Your task to perform on an android device: change alarm snooze length Image 0: 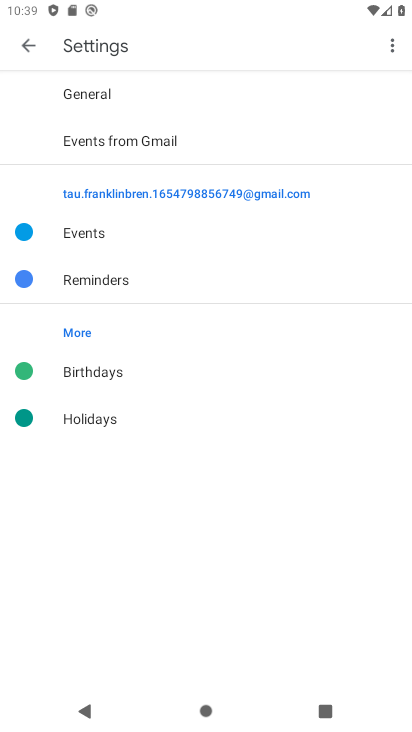
Step 0: press home button
Your task to perform on an android device: change alarm snooze length Image 1: 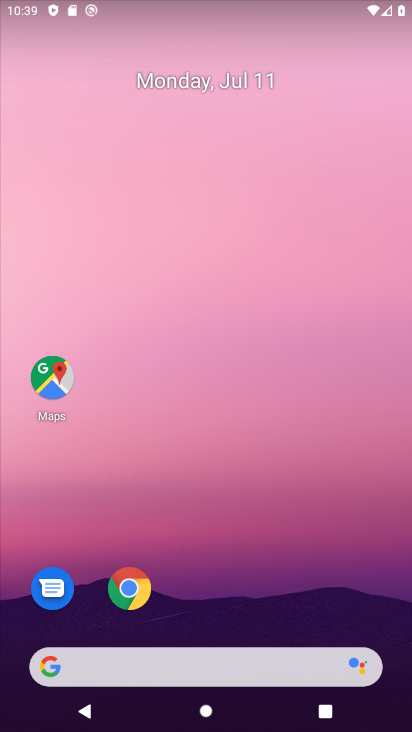
Step 1: drag from (200, 514) to (201, 184)
Your task to perform on an android device: change alarm snooze length Image 2: 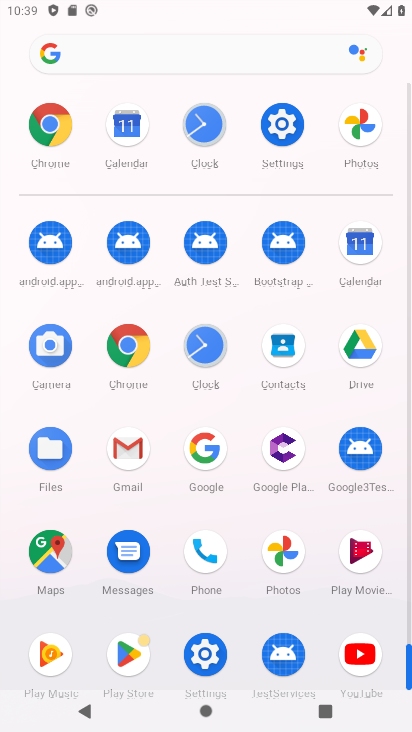
Step 2: click (205, 127)
Your task to perform on an android device: change alarm snooze length Image 3: 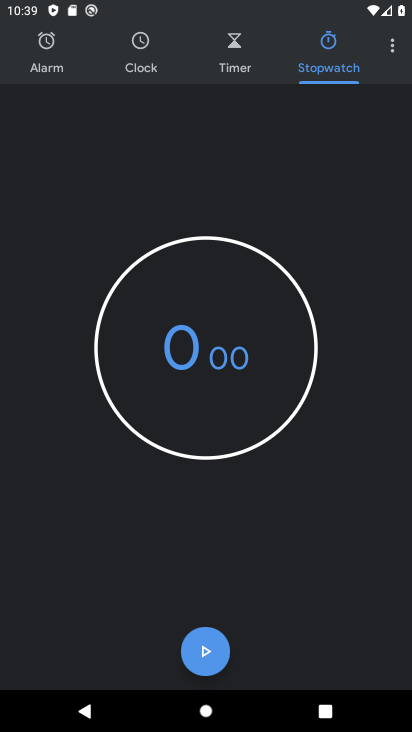
Step 3: click (393, 47)
Your task to perform on an android device: change alarm snooze length Image 4: 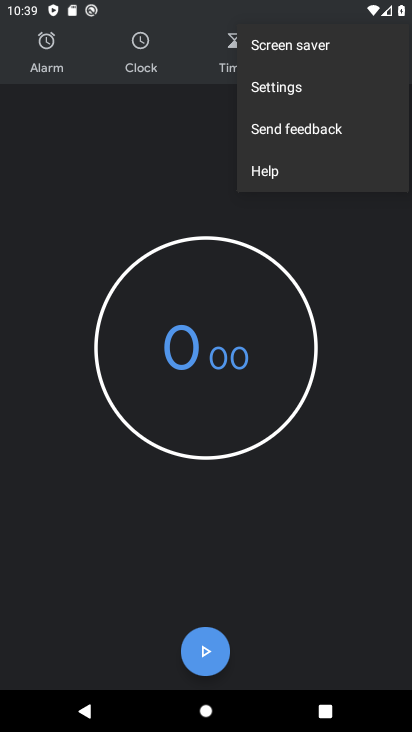
Step 4: click (278, 85)
Your task to perform on an android device: change alarm snooze length Image 5: 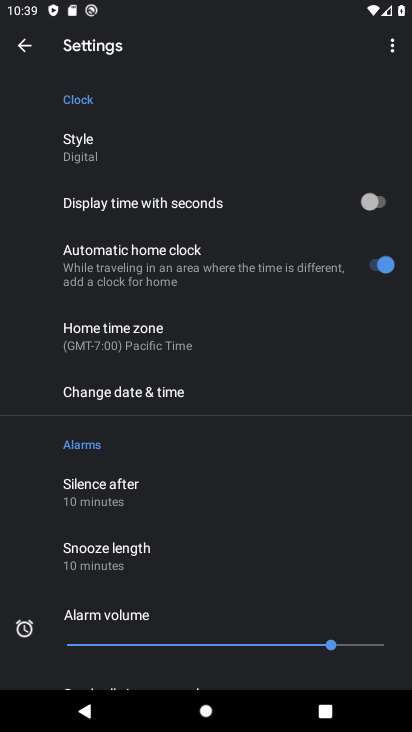
Step 5: click (119, 541)
Your task to perform on an android device: change alarm snooze length Image 6: 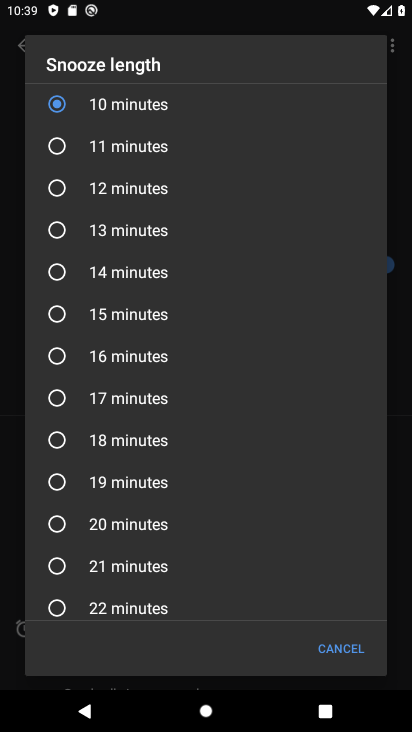
Step 6: click (60, 178)
Your task to perform on an android device: change alarm snooze length Image 7: 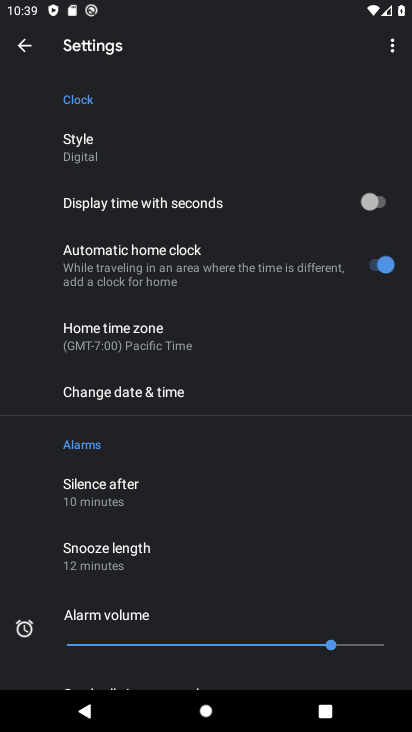
Step 7: task complete